Your task to perform on an android device: change the clock display to show seconds Image 0: 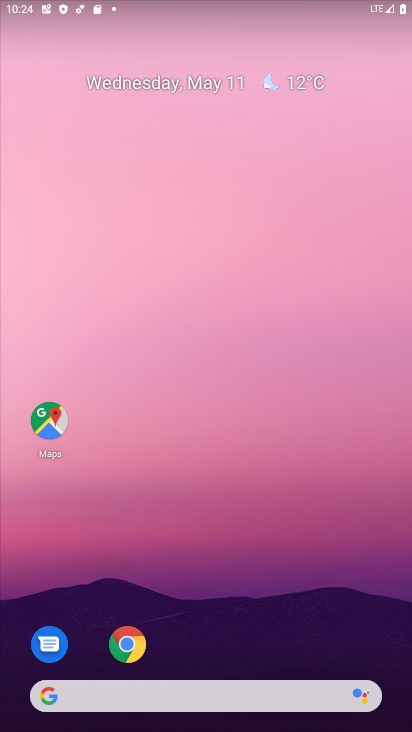
Step 0: drag from (271, 560) to (270, 228)
Your task to perform on an android device: change the clock display to show seconds Image 1: 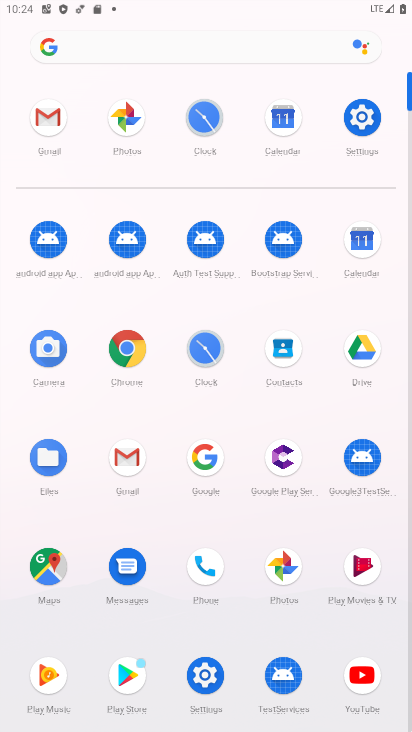
Step 1: click (217, 141)
Your task to perform on an android device: change the clock display to show seconds Image 2: 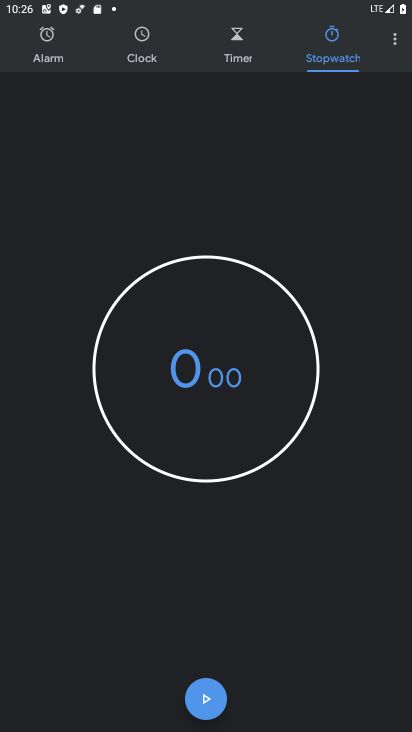
Step 2: click (385, 57)
Your task to perform on an android device: change the clock display to show seconds Image 3: 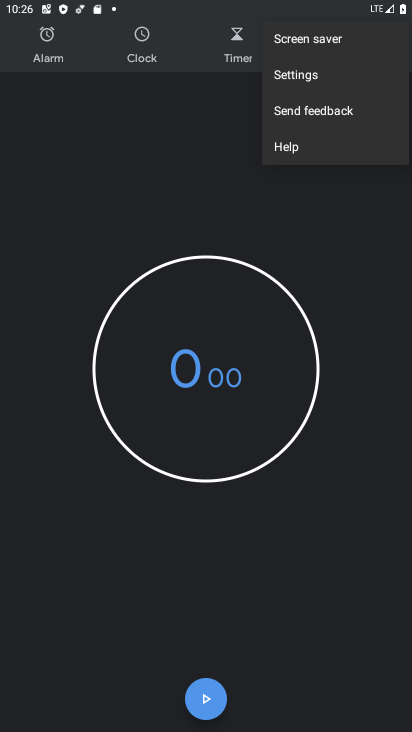
Step 3: click (362, 83)
Your task to perform on an android device: change the clock display to show seconds Image 4: 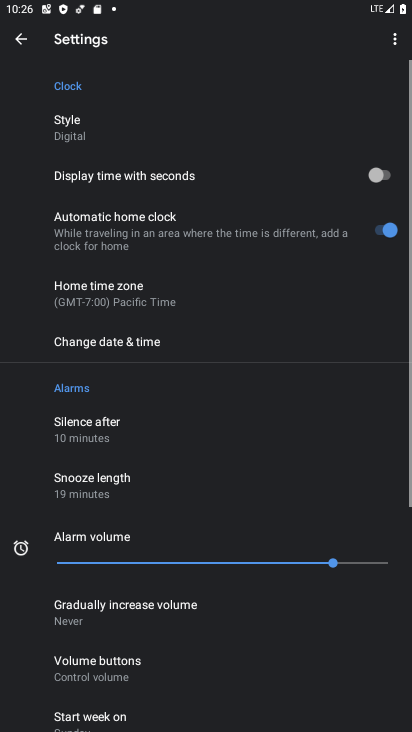
Step 4: click (343, 175)
Your task to perform on an android device: change the clock display to show seconds Image 5: 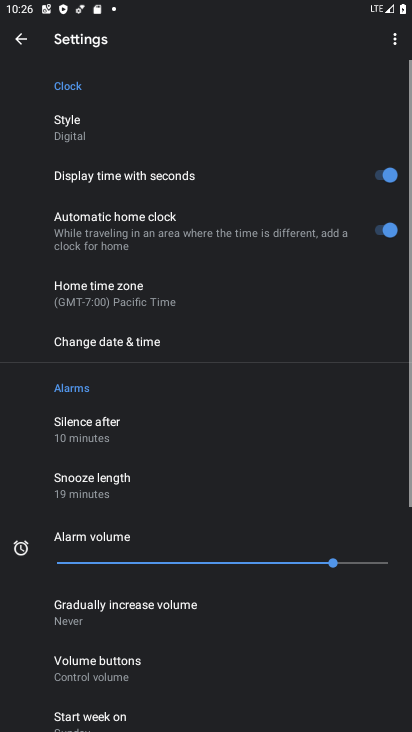
Step 5: task complete